Your task to perform on an android device: What's the latest news in planetary science? Image 0: 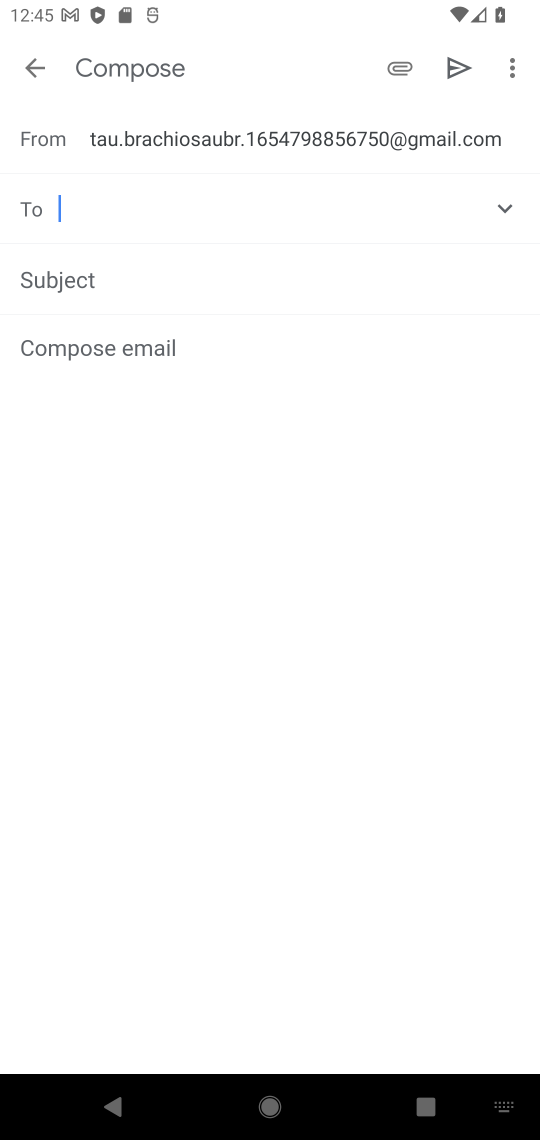
Step 0: press home button
Your task to perform on an android device: What's the latest news in planetary science? Image 1: 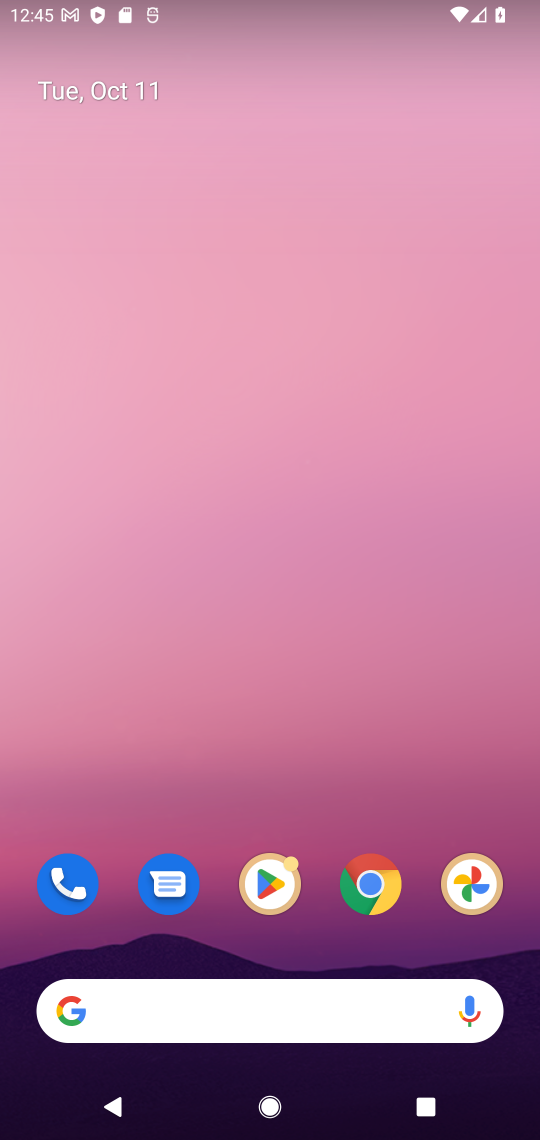
Step 1: drag from (342, 792) to (315, 218)
Your task to perform on an android device: What's the latest news in planetary science? Image 2: 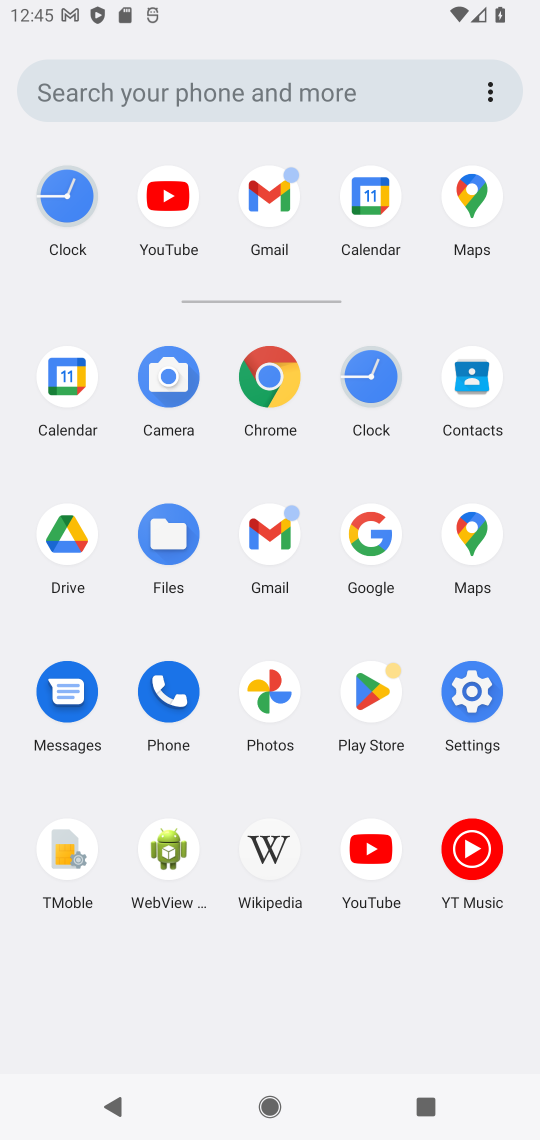
Step 2: click (365, 554)
Your task to perform on an android device: What's the latest news in planetary science? Image 3: 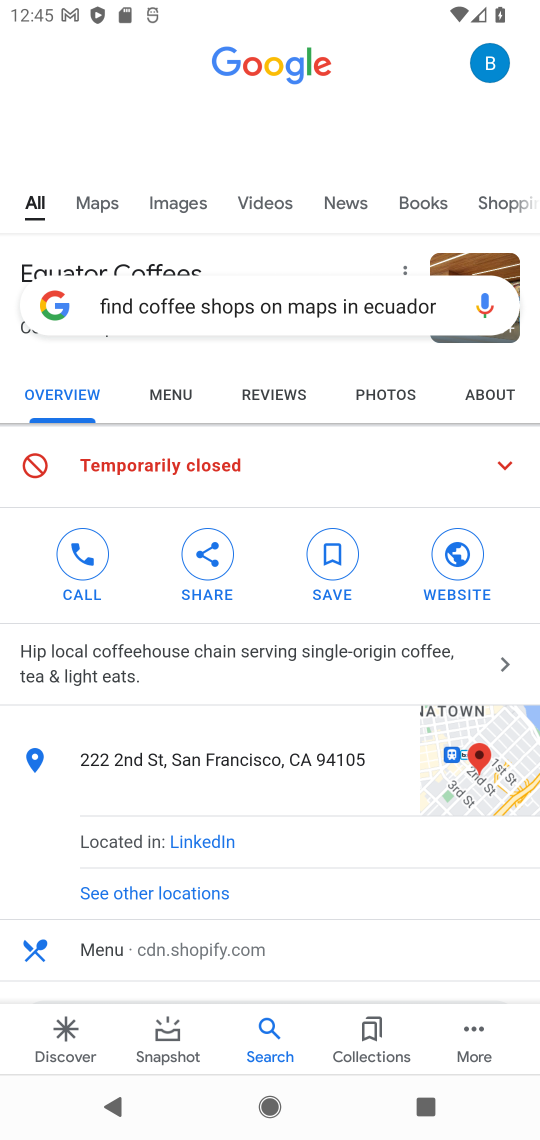
Step 3: click (371, 295)
Your task to perform on an android device: What's the latest news in planetary science? Image 4: 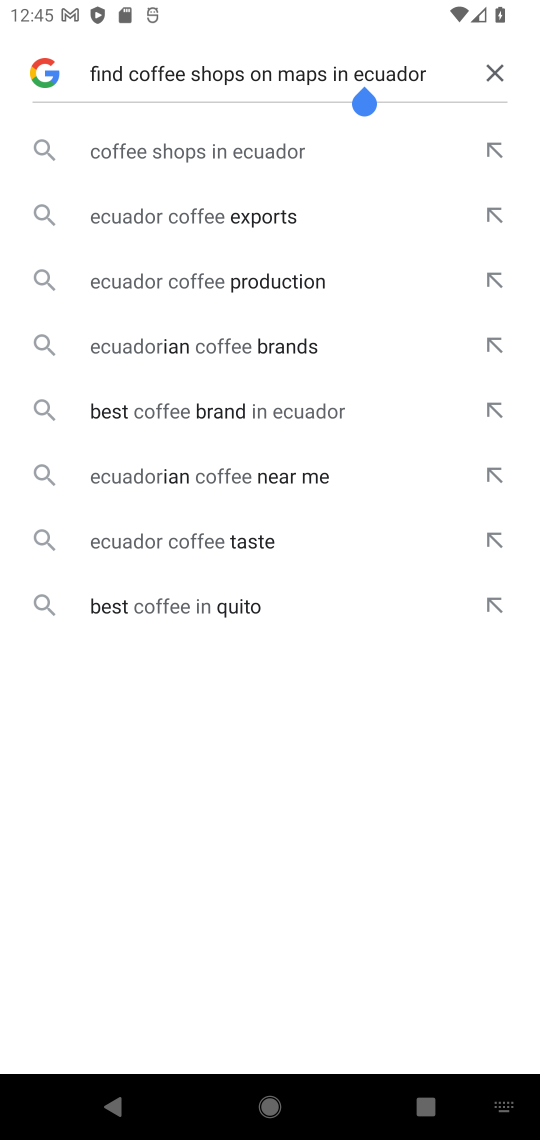
Step 4: click (487, 76)
Your task to perform on an android device: What's the latest news in planetary science? Image 5: 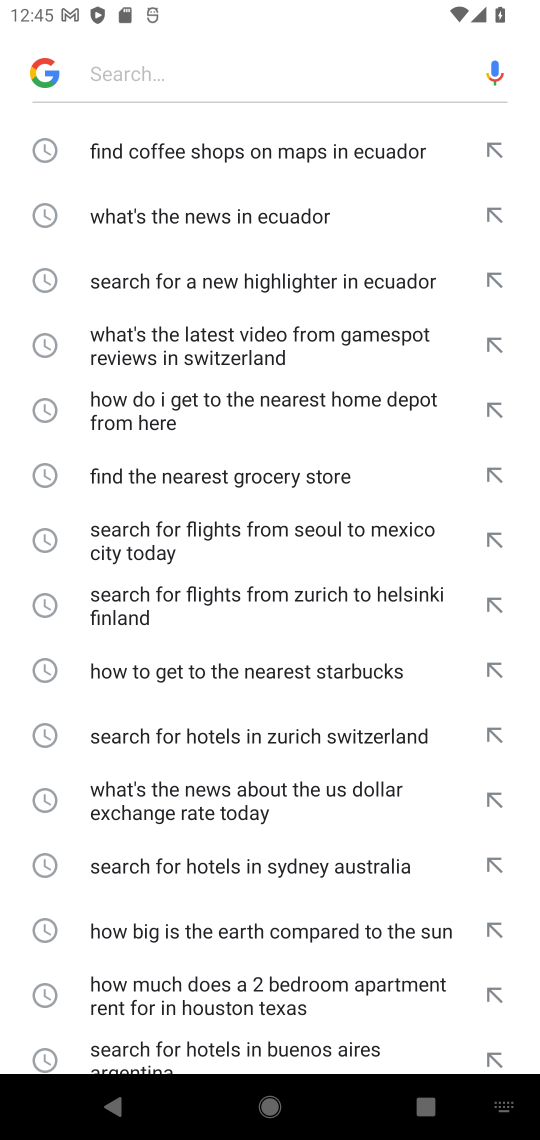
Step 5: type "What's the latest news in planetary science?"
Your task to perform on an android device: What's the latest news in planetary science? Image 6: 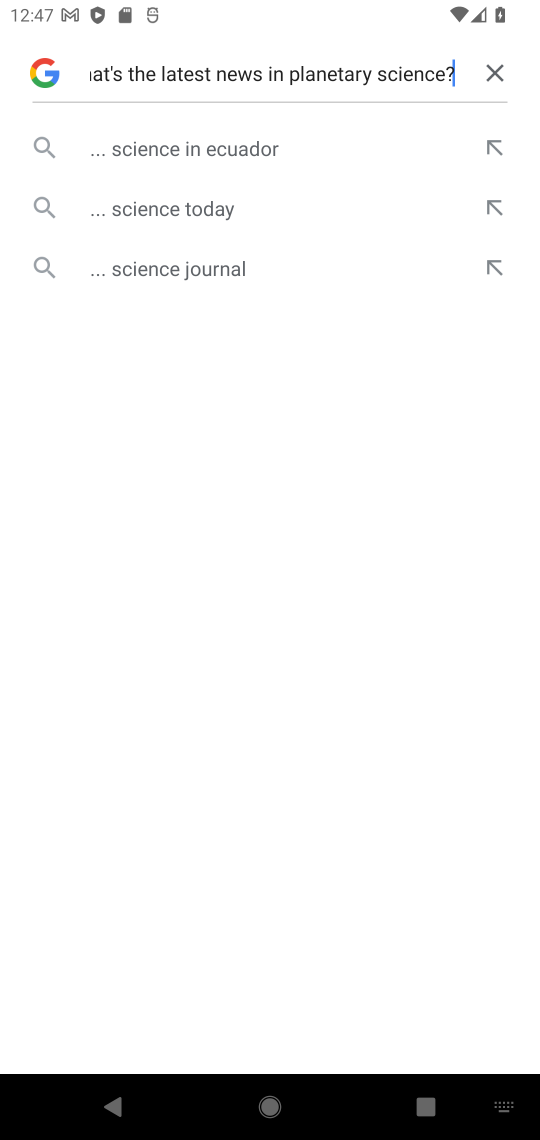
Step 6: click (250, 148)
Your task to perform on an android device: What's the latest news in planetary science? Image 7: 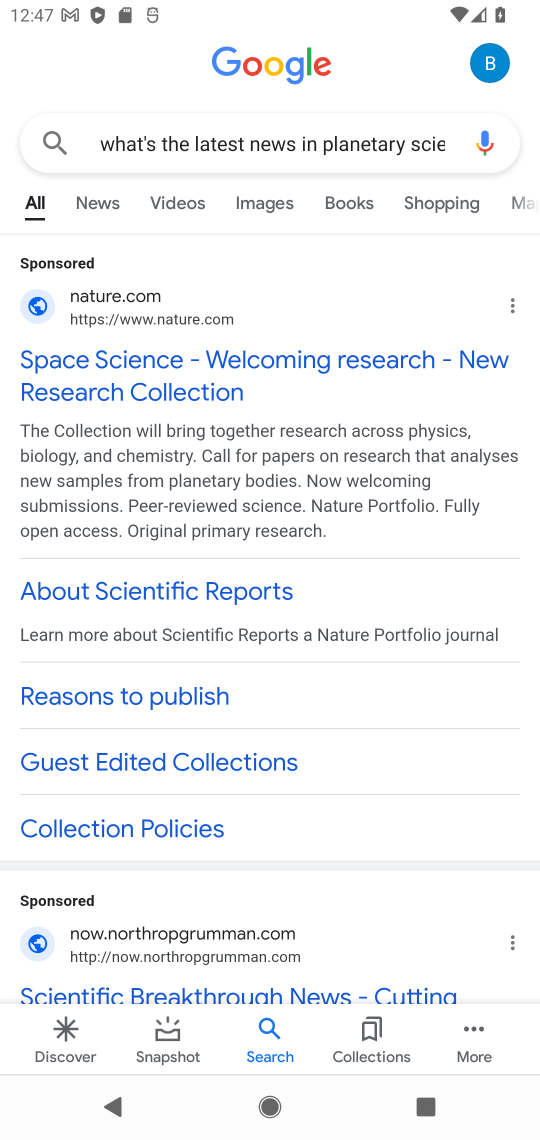
Step 7: click (363, 352)
Your task to perform on an android device: What's the latest news in planetary science? Image 8: 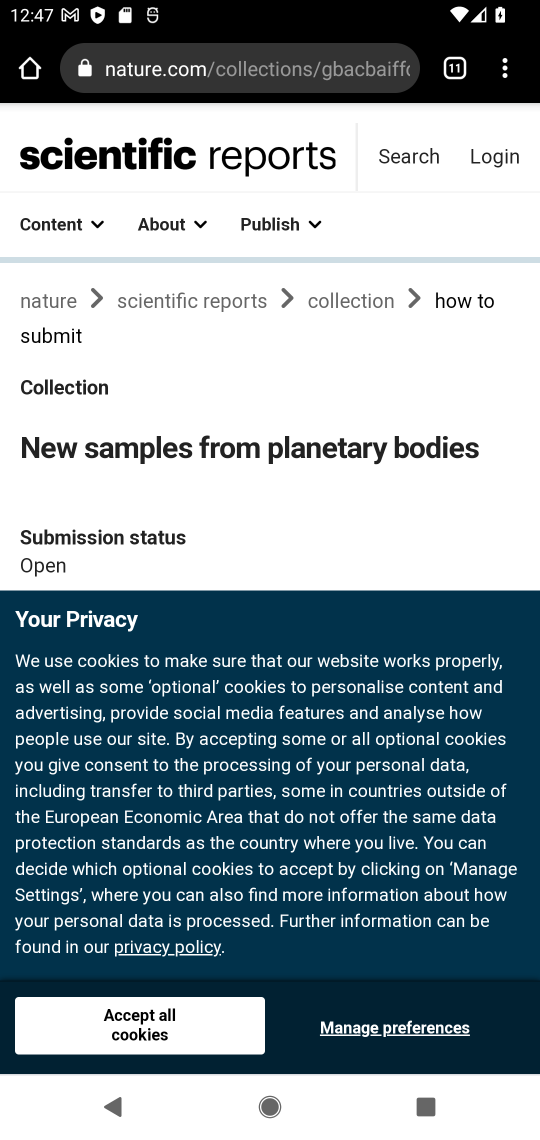
Step 8: task complete